Your task to perform on an android device: Turn off the flashlight Image 0: 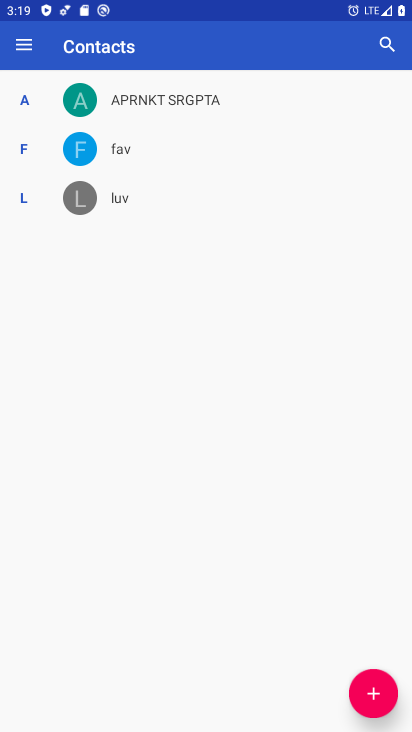
Step 0: press home button
Your task to perform on an android device: Turn off the flashlight Image 1: 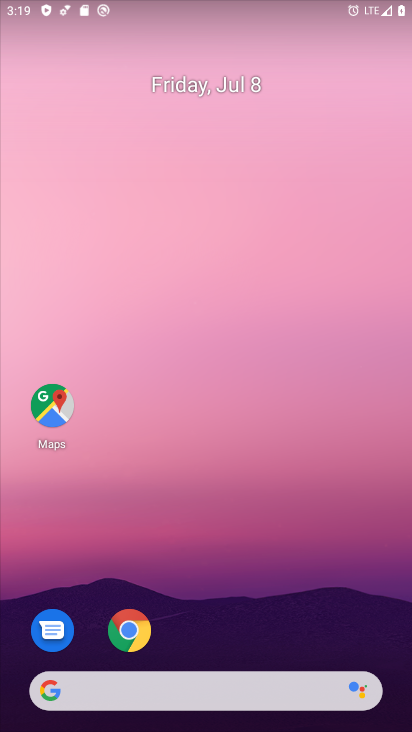
Step 1: drag from (193, 394) to (197, 344)
Your task to perform on an android device: Turn off the flashlight Image 2: 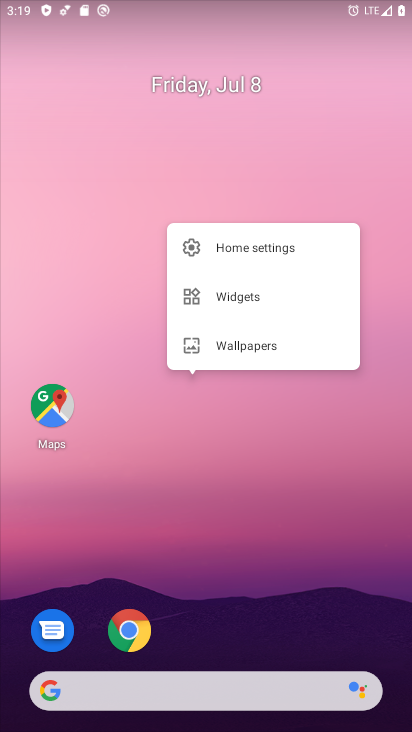
Step 2: drag from (190, 422) to (243, 133)
Your task to perform on an android device: Turn off the flashlight Image 3: 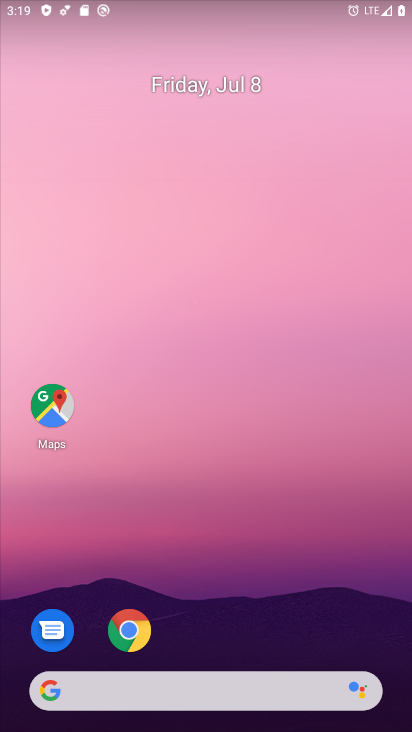
Step 3: drag from (255, 395) to (271, 179)
Your task to perform on an android device: Turn off the flashlight Image 4: 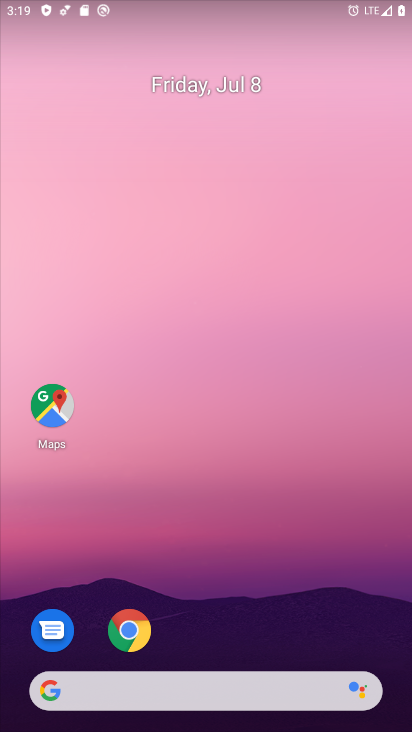
Step 4: drag from (218, 457) to (265, 166)
Your task to perform on an android device: Turn off the flashlight Image 5: 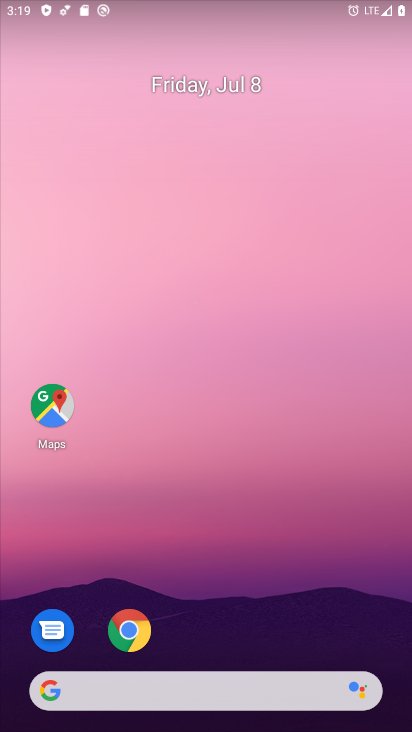
Step 5: drag from (214, 492) to (212, 78)
Your task to perform on an android device: Turn off the flashlight Image 6: 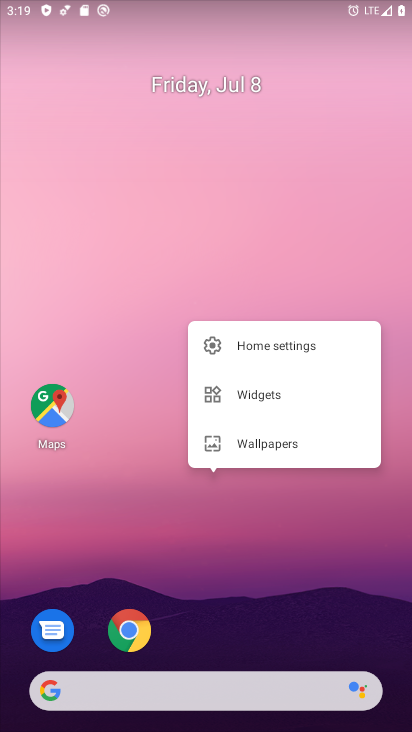
Step 6: click (143, 477)
Your task to perform on an android device: Turn off the flashlight Image 7: 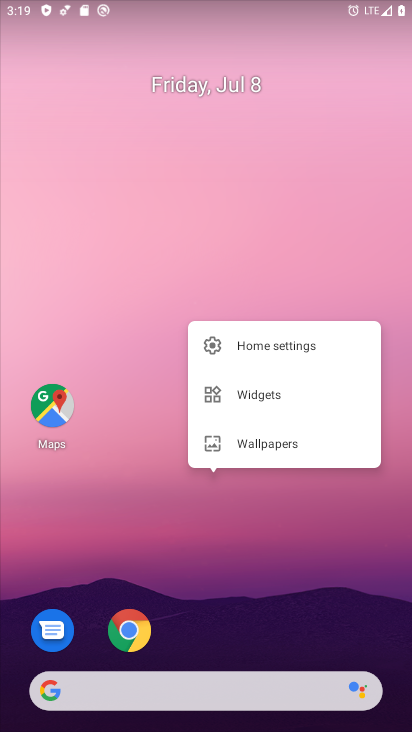
Step 7: drag from (143, 477) to (139, 135)
Your task to perform on an android device: Turn off the flashlight Image 8: 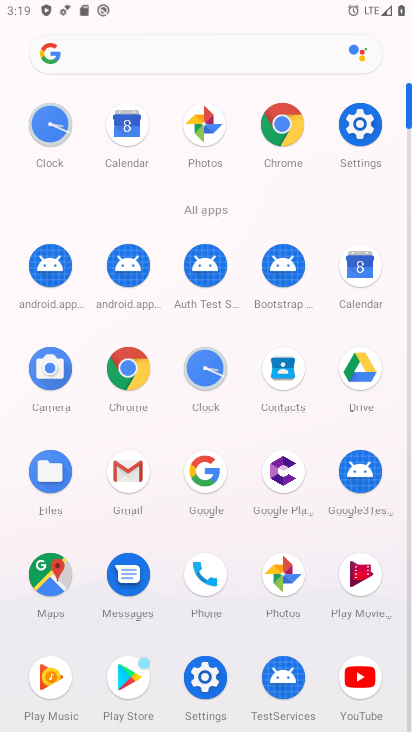
Step 8: click (359, 128)
Your task to perform on an android device: Turn off the flashlight Image 9: 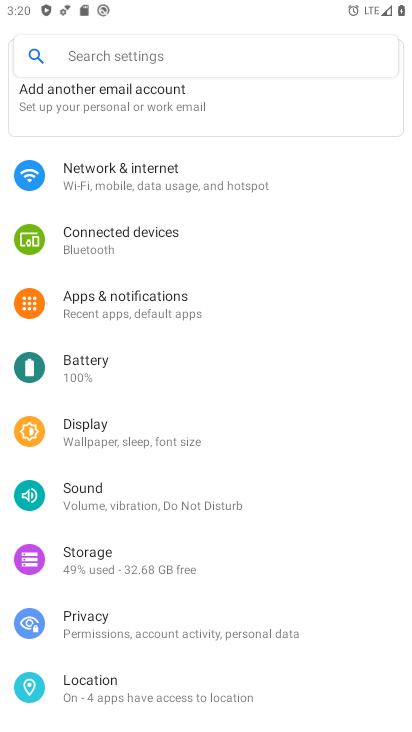
Step 9: click (150, 54)
Your task to perform on an android device: Turn off the flashlight Image 10: 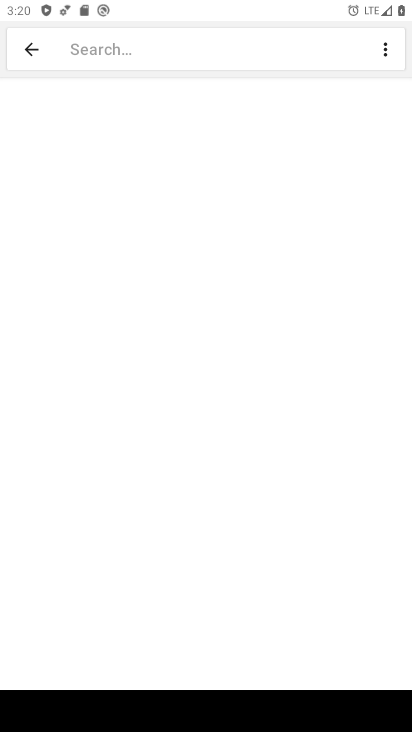
Step 10: type "flashlight"
Your task to perform on an android device: Turn off the flashlight Image 11: 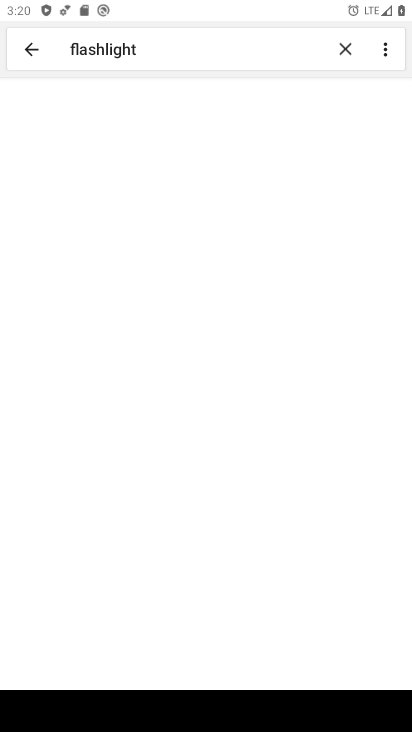
Step 11: press enter
Your task to perform on an android device: Turn off the flashlight Image 12: 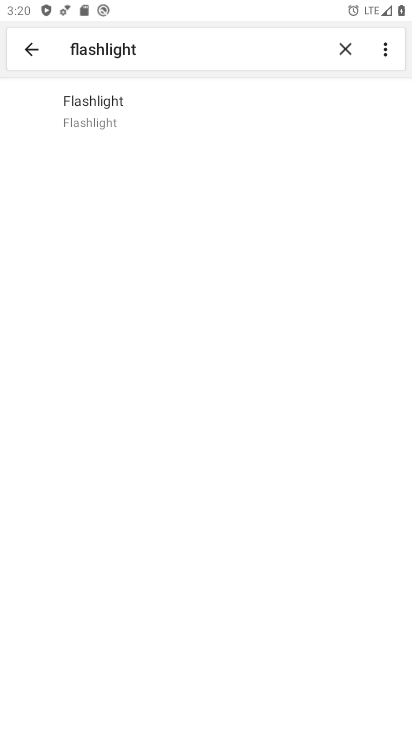
Step 12: click (123, 117)
Your task to perform on an android device: Turn off the flashlight Image 13: 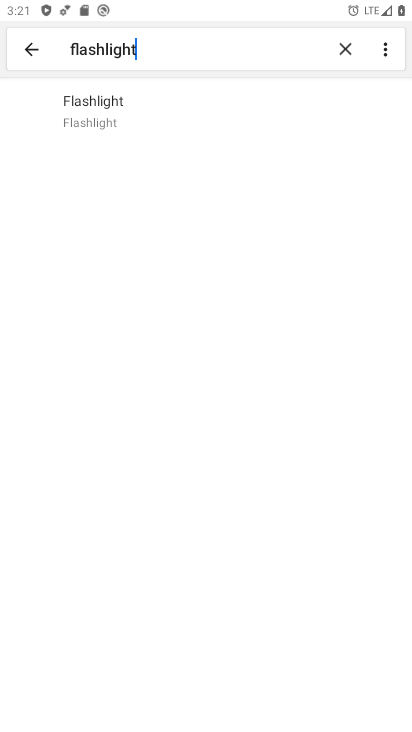
Step 13: click (139, 106)
Your task to perform on an android device: Turn off the flashlight Image 14: 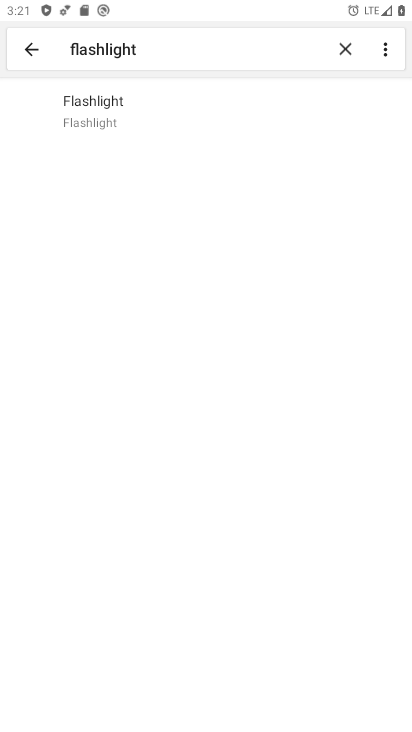
Step 14: task complete